Your task to perform on an android device: read, delete, or share a saved page in the chrome app Image 0: 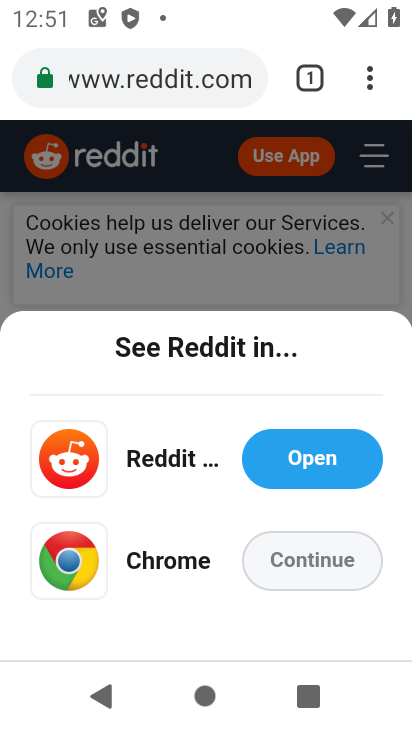
Step 0: drag from (364, 69) to (95, 557)
Your task to perform on an android device: read, delete, or share a saved page in the chrome app Image 1: 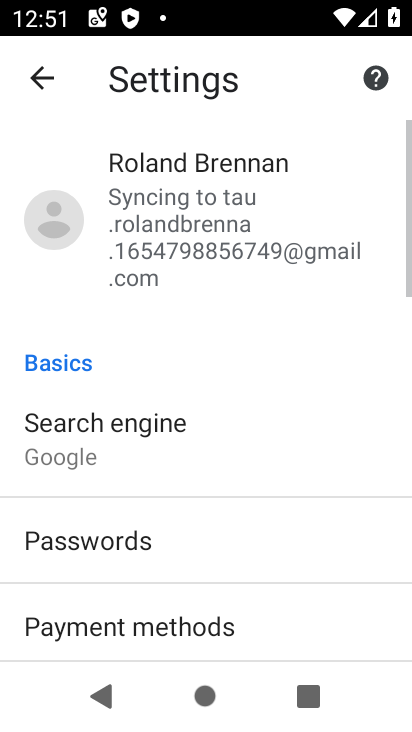
Step 1: drag from (186, 388) to (221, 245)
Your task to perform on an android device: read, delete, or share a saved page in the chrome app Image 2: 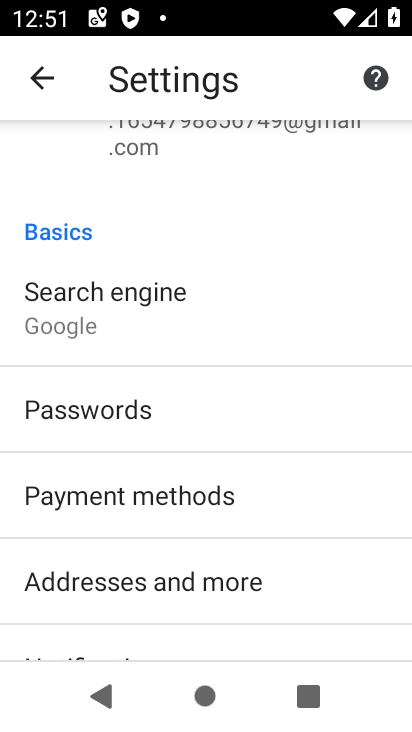
Step 2: drag from (142, 614) to (187, 464)
Your task to perform on an android device: read, delete, or share a saved page in the chrome app Image 3: 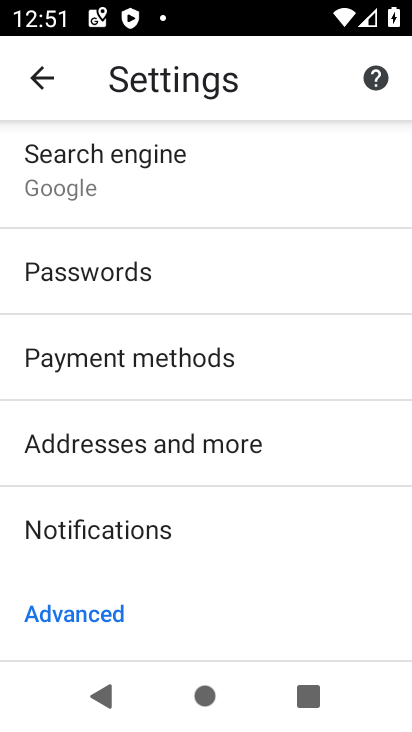
Step 3: click (33, 71)
Your task to perform on an android device: read, delete, or share a saved page in the chrome app Image 4: 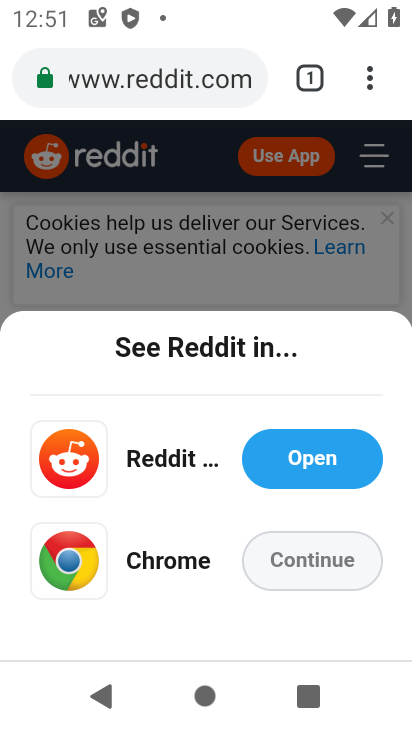
Step 4: drag from (375, 75) to (90, 517)
Your task to perform on an android device: read, delete, or share a saved page in the chrome app Image 5: 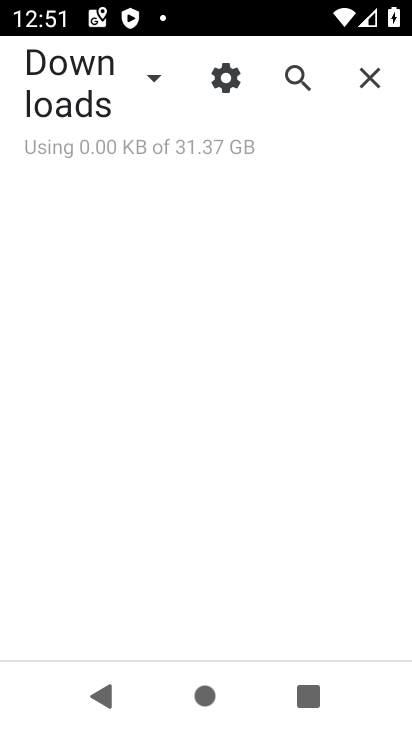
Step 5: click (144, 81)
Your task to perform on an android device: read, delete, or share a saved page in the chrome app Image 6: 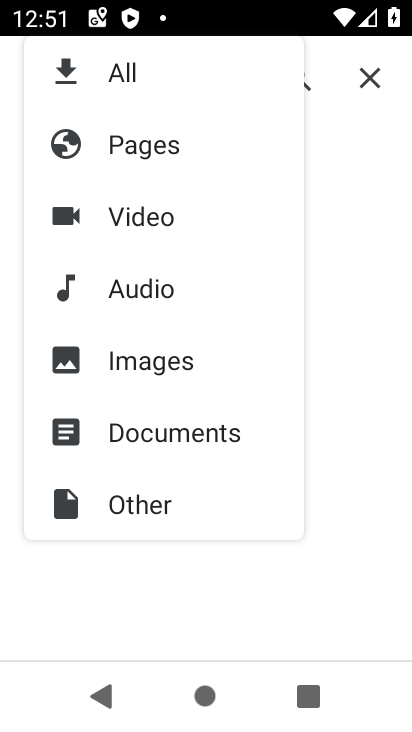
Step 6: click (138, 154)
Your task to perform on an android device: read, delete, or share a saved page in the chrome app Image 7: 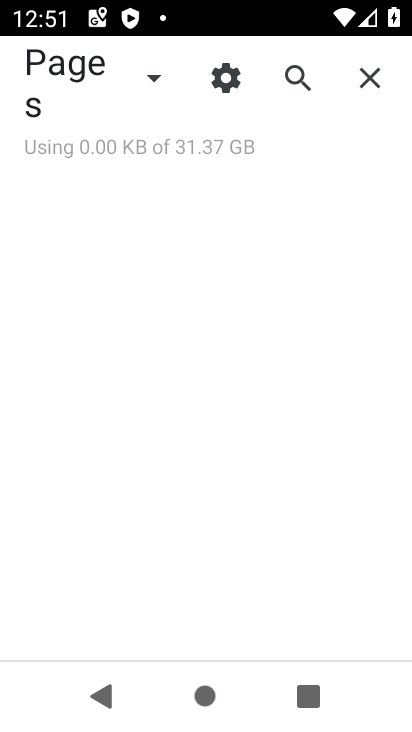
Step 7: task complete